Your task to perform on an android device: Open internet settings Image 0: 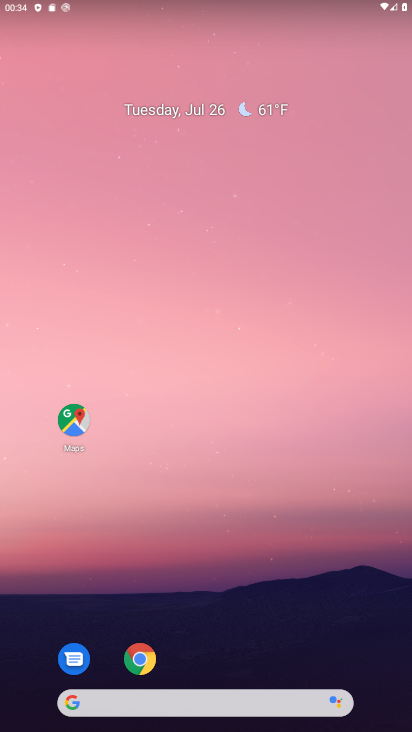
Step 0: drag from (304, 663) to (214, 80)
Your task to perform on an android device: Open internet settings Image 1: 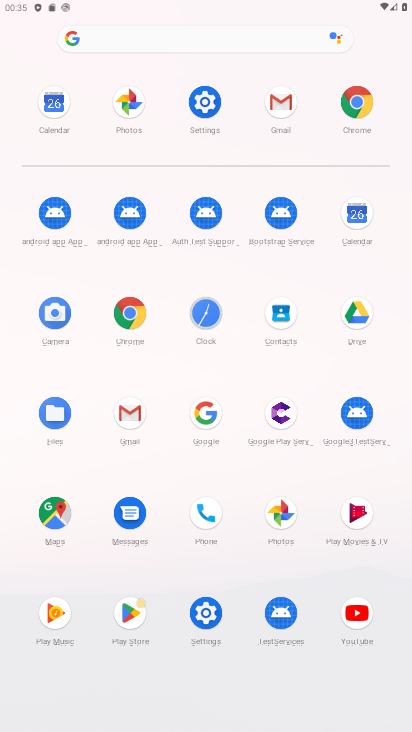
Step 1: click (204, 104)
Your task to perform on an android device: Open internet settings Image 2: 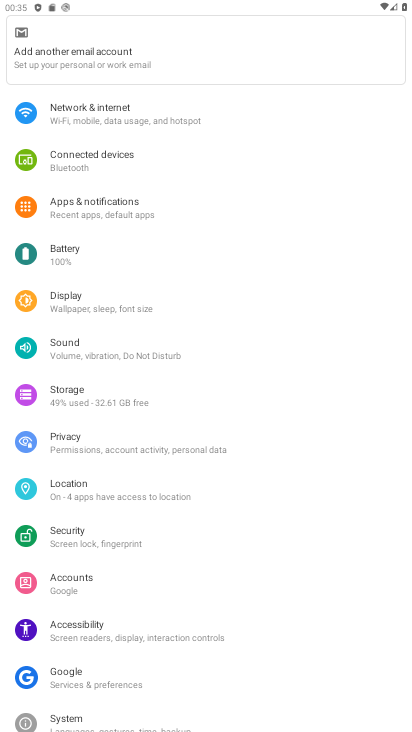
Step 2: click (127, 110)
Your task to perform on an android device: Open internet settings Image 3: 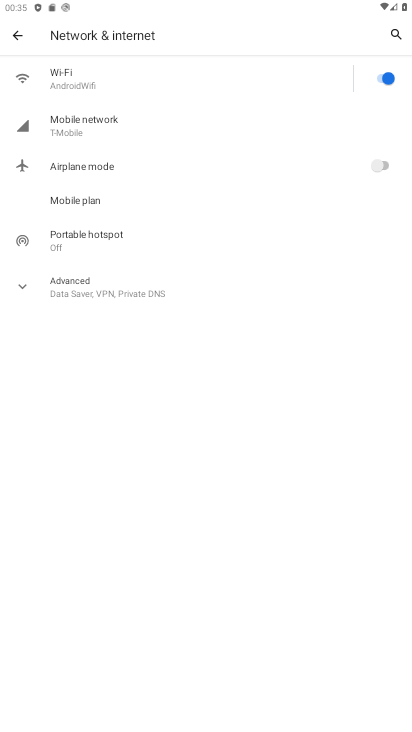
Step 3: click (60, 290)
Your task to perform on an android device: Open internet settings Image 4: 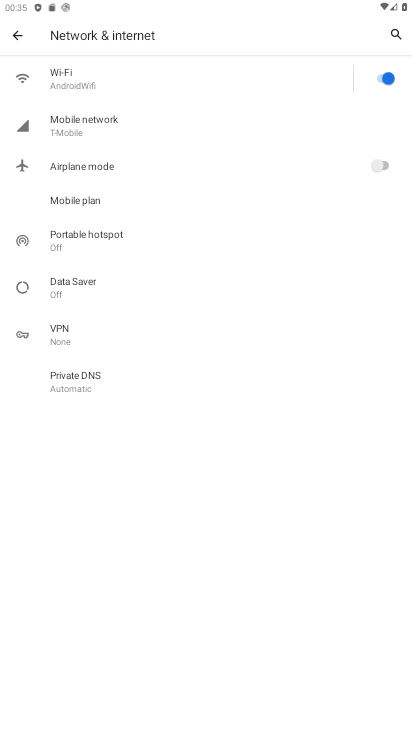
Step 4: task complete